Your task to perform on an android device: Open Amazon Image 0: 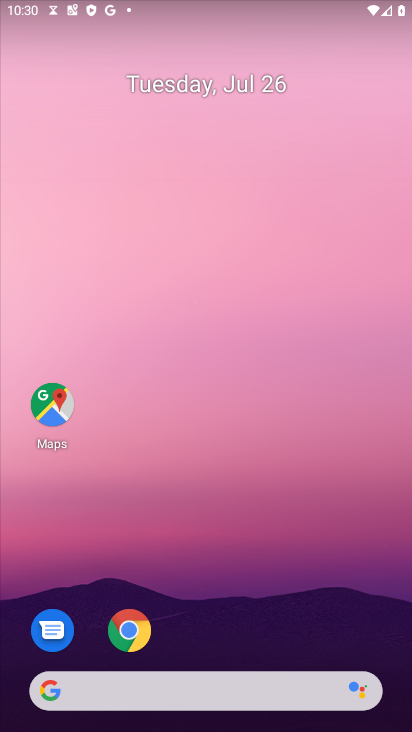
Step 0: click (126, 626)
Your task to perform on an android device: Open Amazon Image 1: 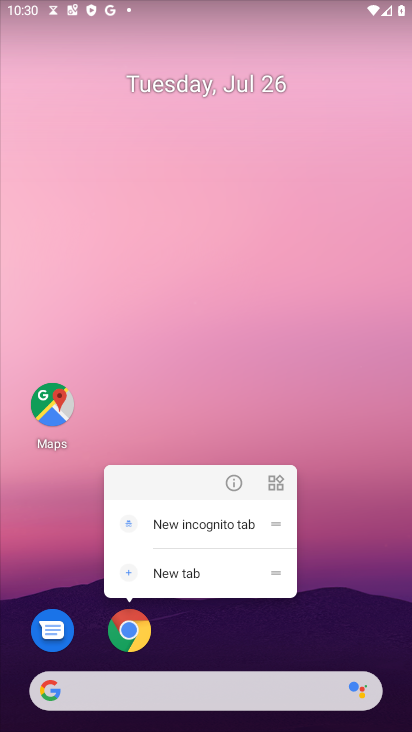
Step 1: click (126, 630)
Your task to perform on an android device: Open Amazon Image 2: 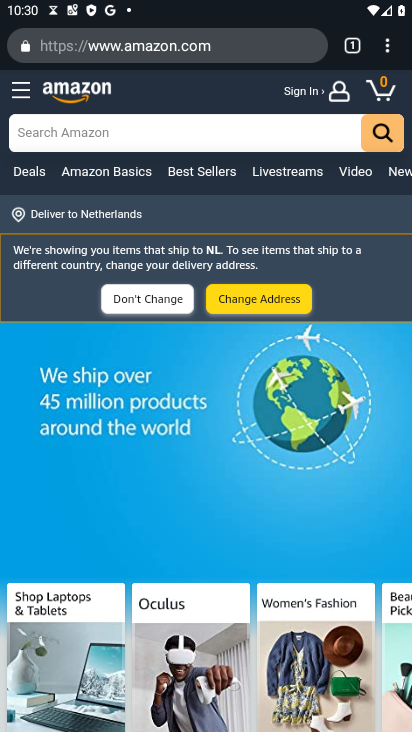
Step 2: drag from (185, 470) to (239, 272)
Your task to perform on an android device: Open Amazon Image 3: 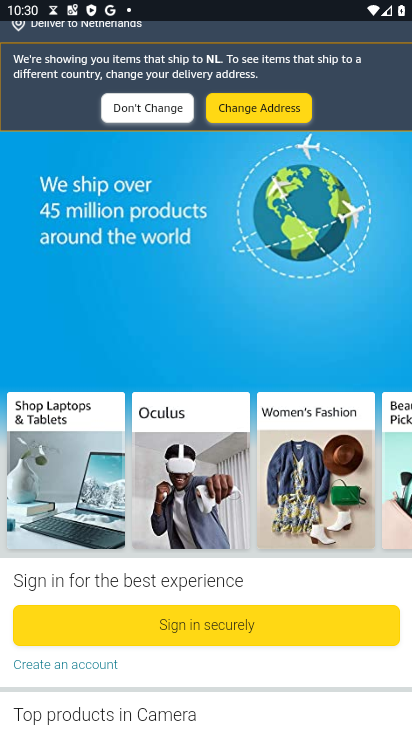
Step 3: drag from (266, 162) to (246, 503)
Your task to perform on an android device: Open Amazon Image 4: 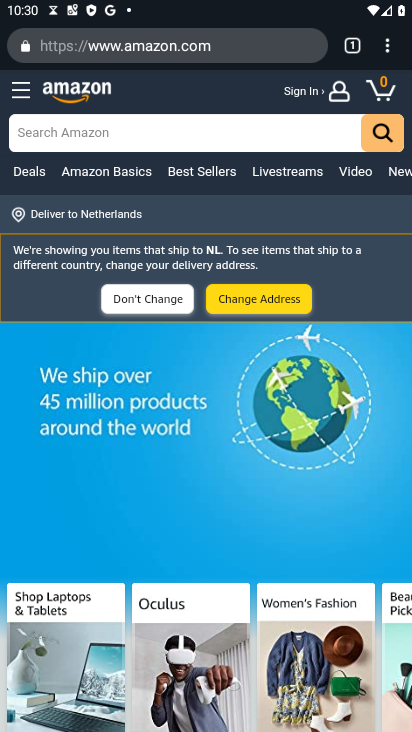
Step 4: click (256, 50)
Your task to perform on an android device: Open Amazon Image 5: 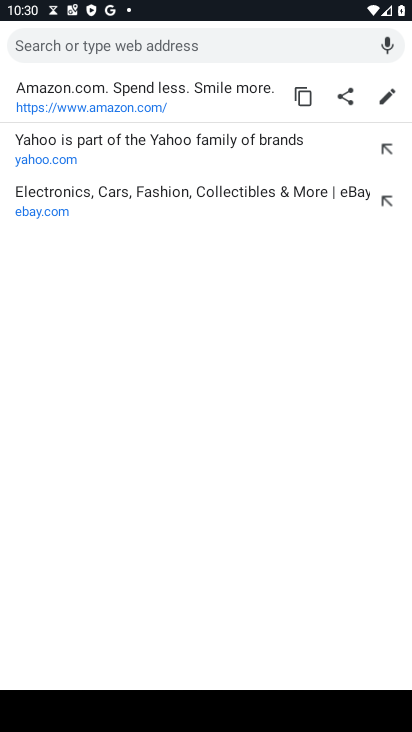
Step 5: type "Amazon"
Your task to perform on an android device: Open Amazon Image 6: 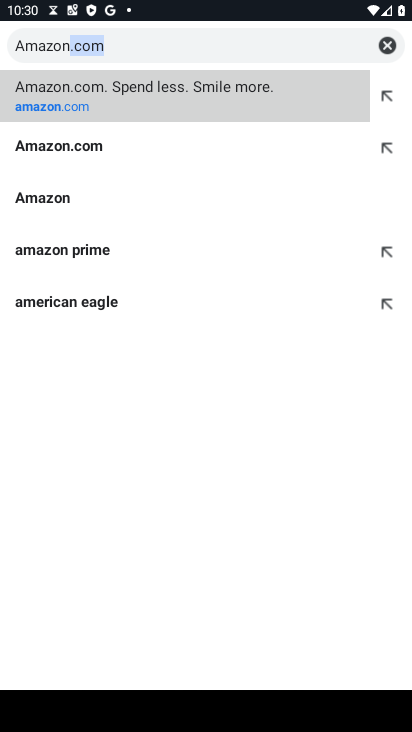
Step 6: type ""
Your task to perform on an android device: Open Amazon Image 7: 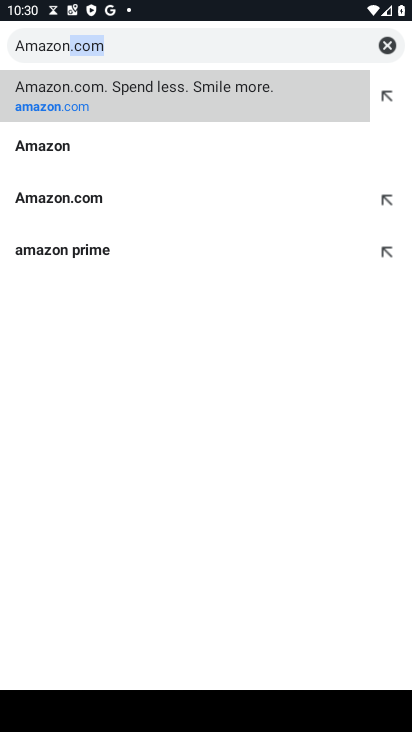
Step 7: click (51, 143)
Your task to perform on an android device: Open Amazon Image 8: 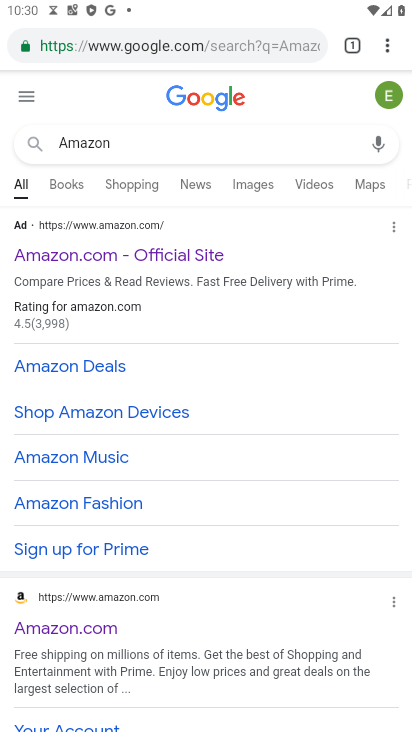
Step 8: drag from (142, 553) to (236, 415)
Your task to perform on an android device: Open Amazon Image 9: 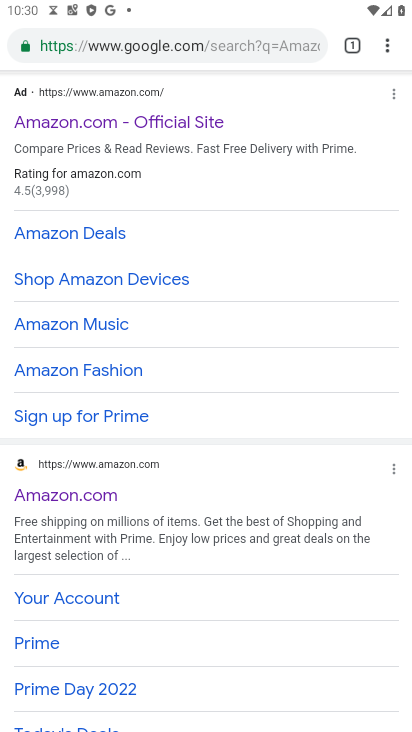
Step 9: click (91, 512)
Your task to perform on an android device: Open Amazon Image 10: 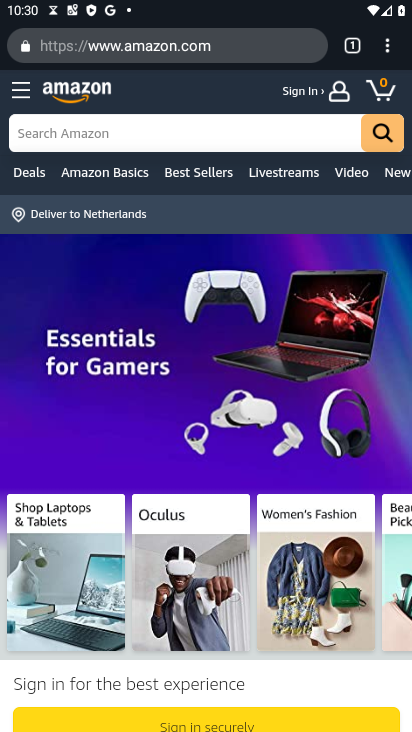
Step 10: task complete